Your task to perform on an android device: turn pop-ups off in chrome Image 0: 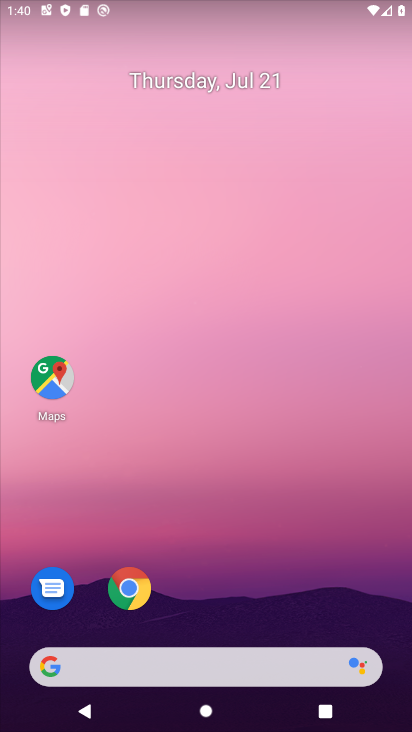
Step 0: click (136, 578)
Your task to perform on an android device: turn pop-ups off in chrome Image 1: 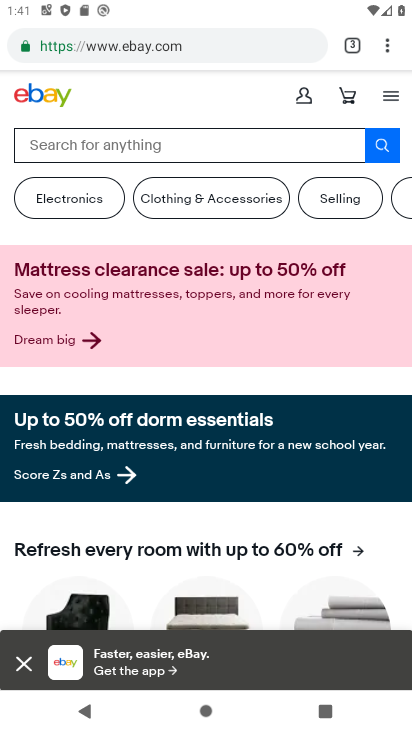
Step 1: drag from (388, 39) to (237, 545)
Your task to perform on an android device: turn pop-ups off in chrome Image 2: 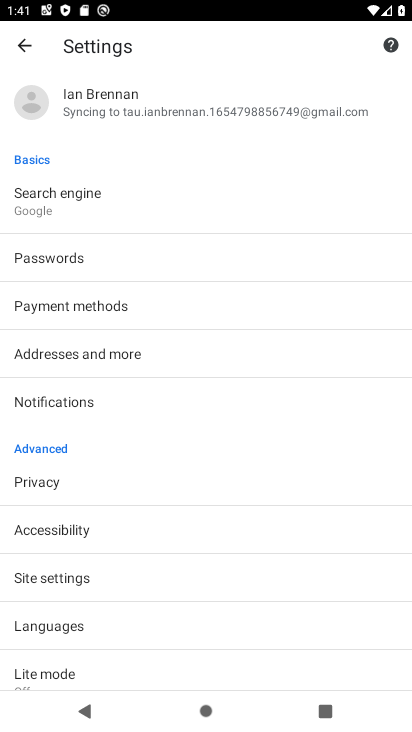
Step 2: click (40, 570)
Your task to perform on an android device: turn pop-ups off in chrome Image 3: 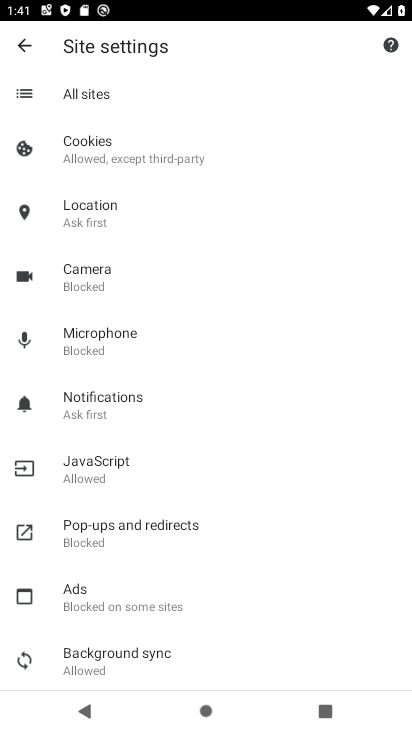
Step 3: click (129, 532)
Your task to perform on an android device: turn pop-ups off in chrome Image 4: 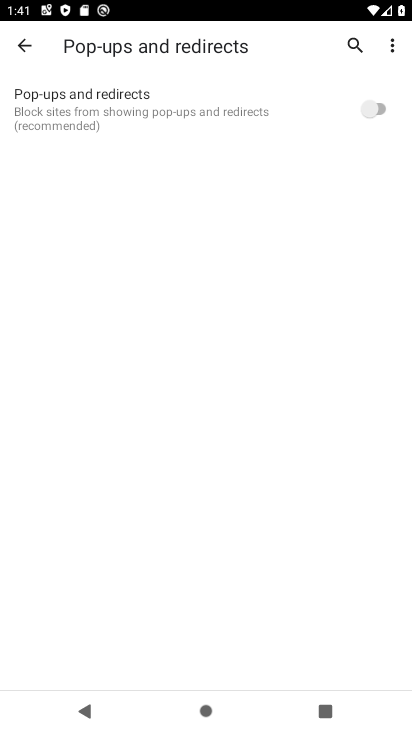
Step 4: task complete